Your task to perform on an android device: See recent photos Image 0: 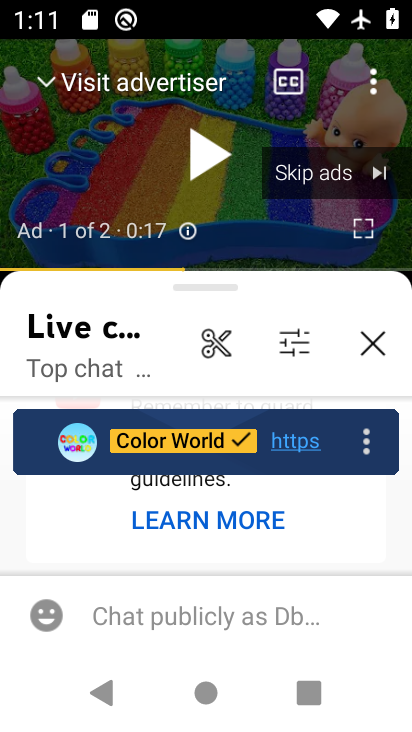
Step 0: press home button
Your task to perform on an android device: See recent photos Image 1: 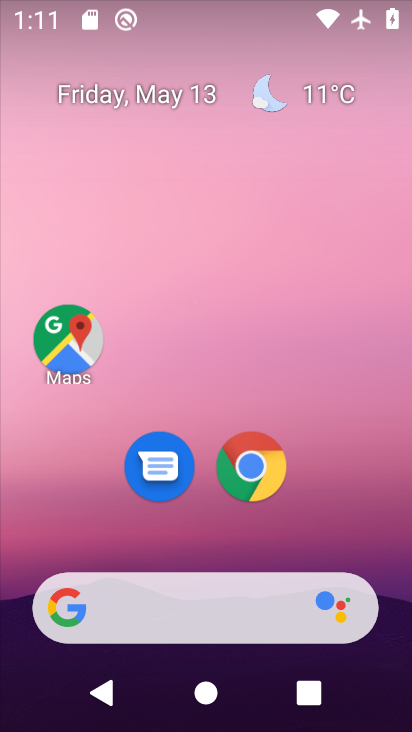
Step 1: drag from (306, 549) to (410, 49)
Your task to perform on an android device: See recent photos Image 2: 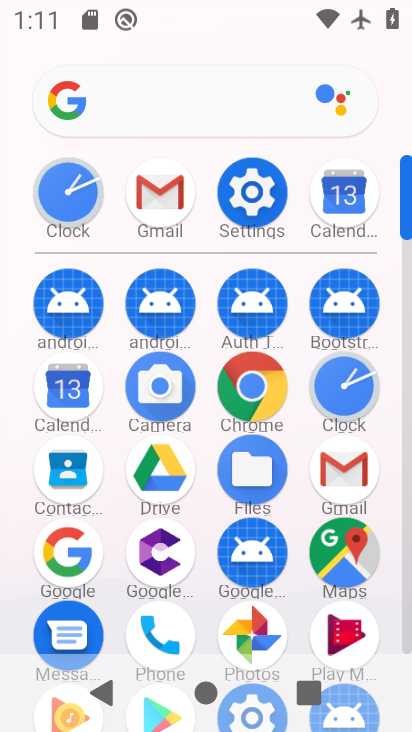
Step 2: click (246, 634)
Your task to perform on an android device: See recent photos Image 3: 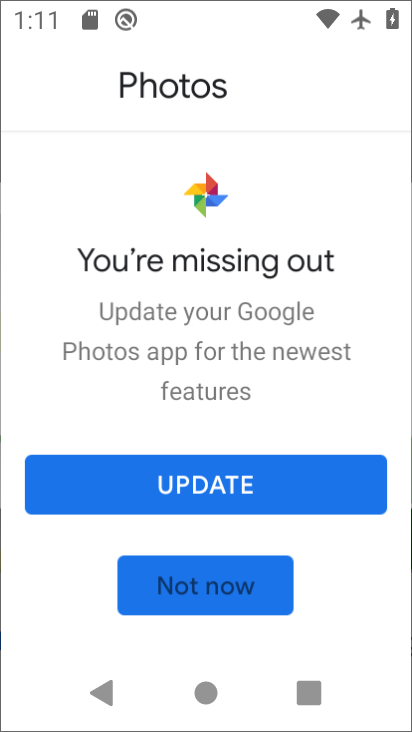
Step 3: click (321, 453)
Your task to perform on an android device: See recent photos Image 4: 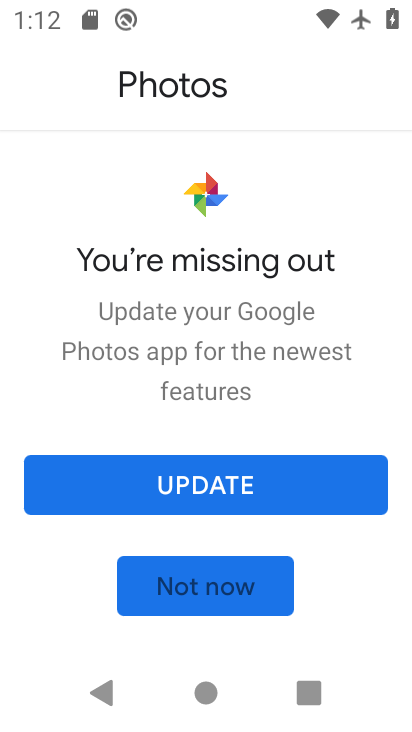
Step 4: click (285, 481)
Your task to perform on an android device: See recent photos Image 5: 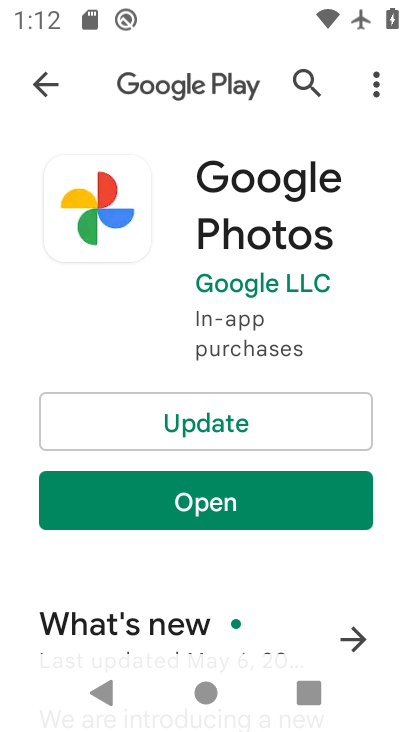
Step 5: click (227, 435)
Your task to perform on an android device: See recent photos Image 6: 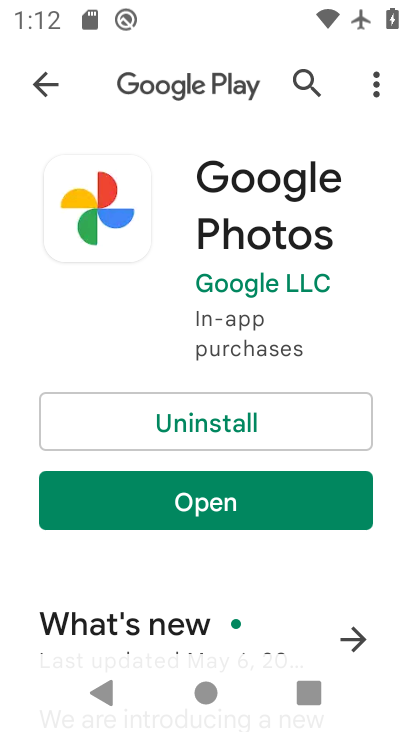
Step 6: click (92, 479)
Your task to perform on an android device: See recent photos Image 7: 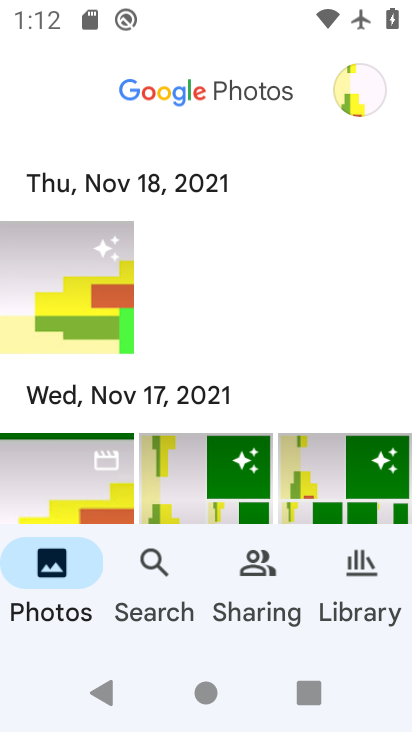
Step 7: task complete